Your task to perform on an android device: Open location settings Image 0: 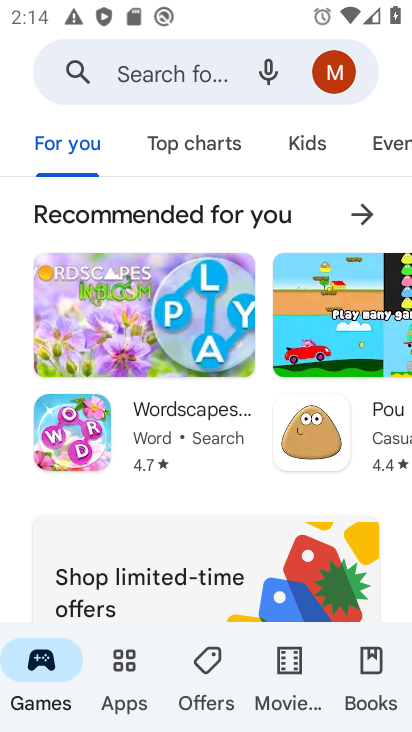
Step 0: press home button
Your task to perform on an android device: Open location settings Image 1: 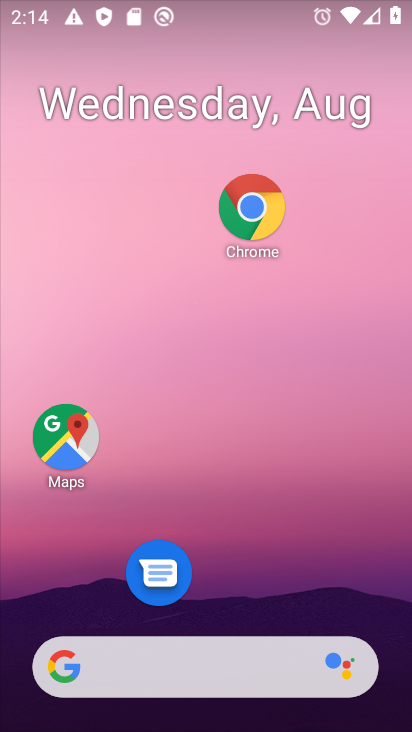
Step 1: drag from (310, 607) to (286, 70)
Your task to perform on an android device: Open location settings Image 2: 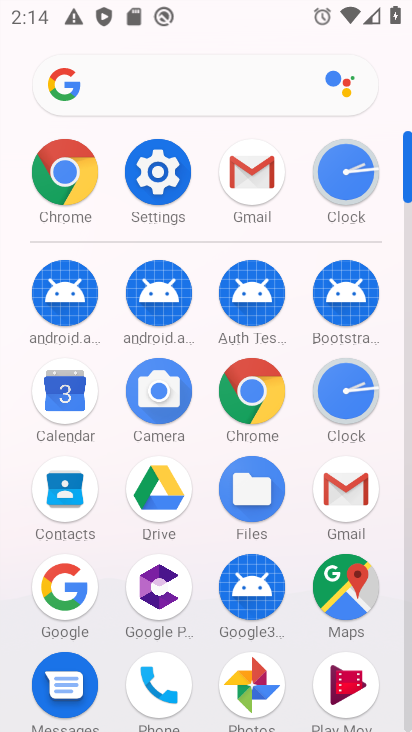
Step 2: click (170, 169)
Your task to perform on an android device: Open location settings Image 3: 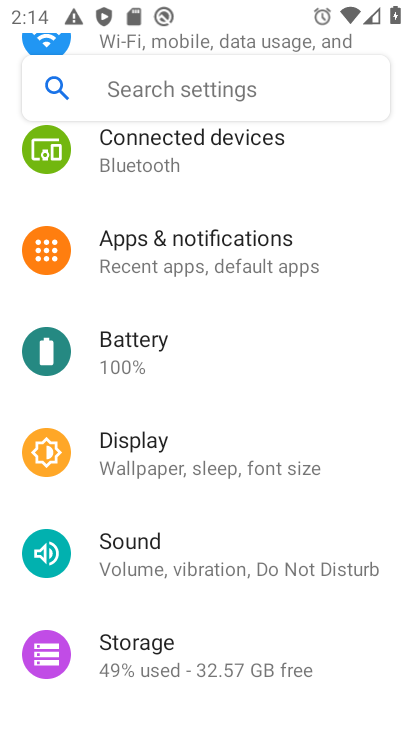
Step 3: drag from (216, 619) to (217, 349)
Your task to perform on an android device: Open location settings Image 4: 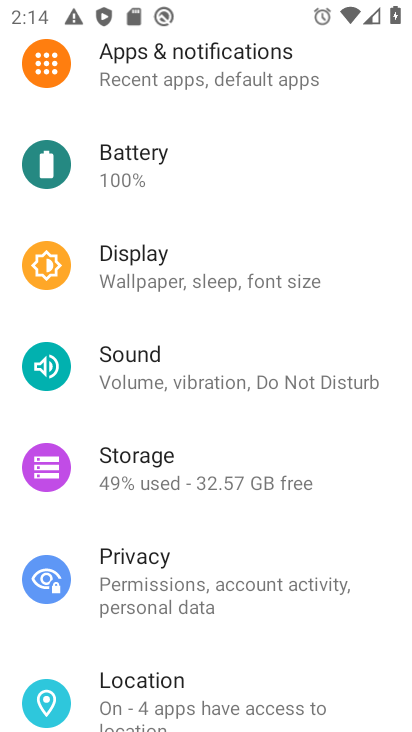
Step 4: click (183, 690)
Your task to perform on an android device: Open location settings Image 5: 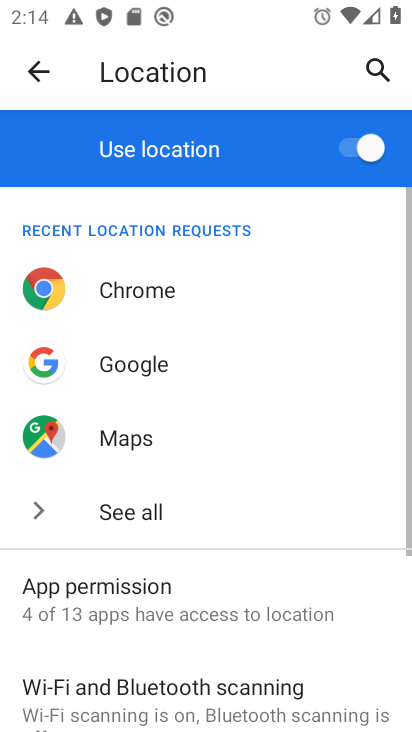
Step 5: task complete